Your task to perform on an android device: Go to calendar. Show me events next week Image 0: 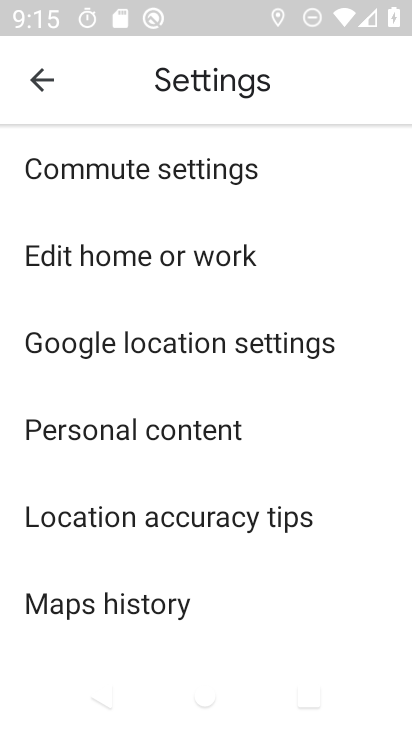
Step 0: press back button
Your task to perform on an android device: Go to calendar. Show me events next week Image 1: 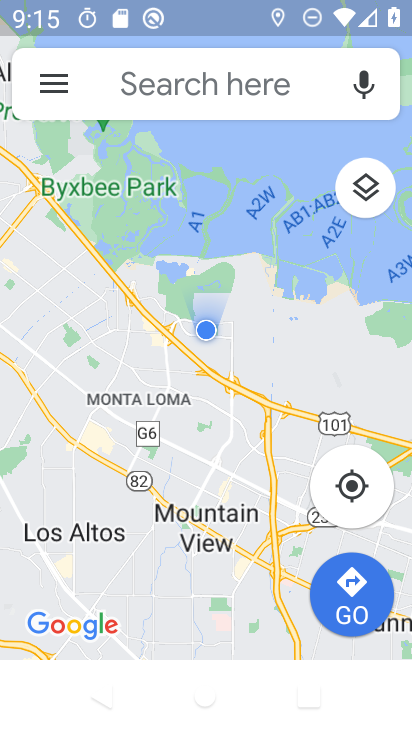
Step 1: press back button
Your task to perform on an android device: Go to calendar. Show me events next week Image 2: 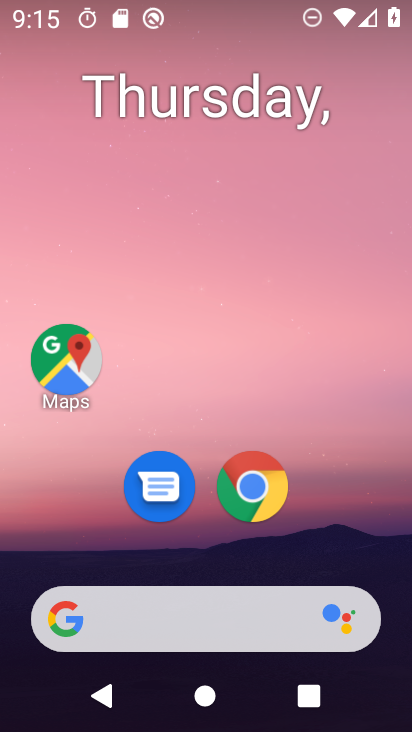
Step 2: drag from (79, 556) to (211, 10)
Your task to perform on an android device: Go to calendar. Show me events next week Image 3: 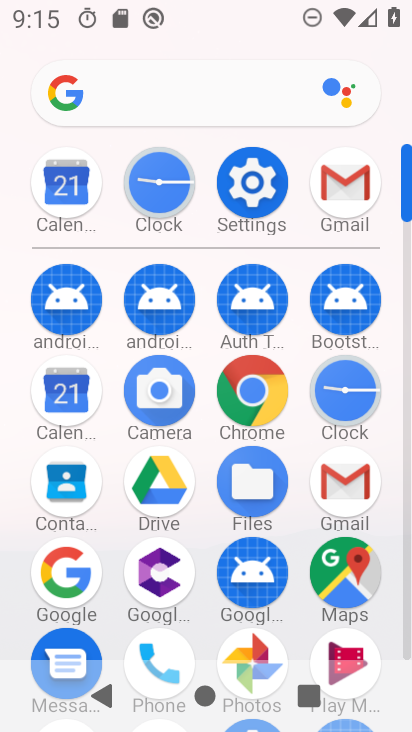
Step 3: click (64, 397)
Your task to perform on an android device: Go to calendar. Show me events next week Image 4: 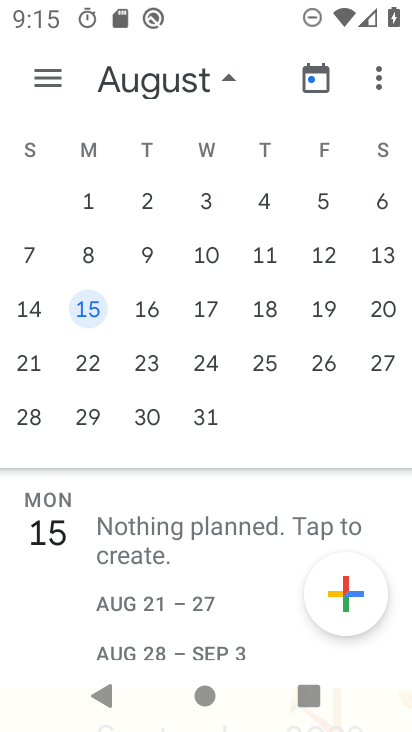
Step 4: drag from (37, 297) to (396, 302)
Your task to perform on an android device: Go to calendar. Show me events next week Image 5: 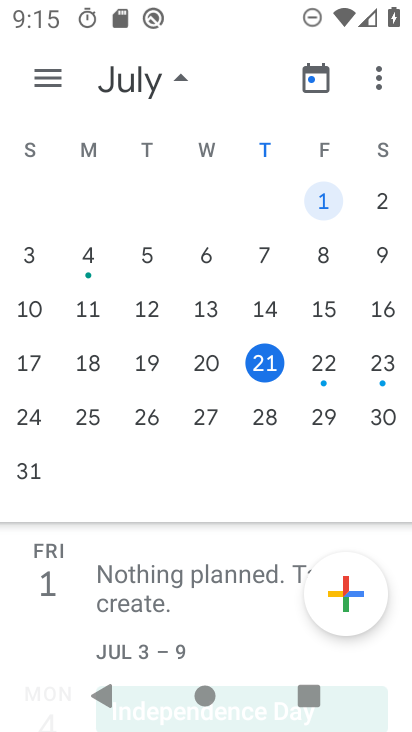
Step 5: click (82, 420)
Your task to perform on an android device: Go to calendar. Show me events next week Image 6: 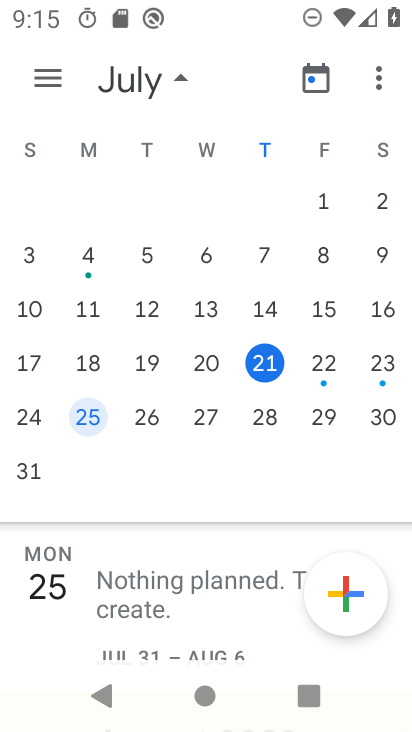
Step 6: task complete